Your task to perform on an android device: Open Yahoo.com Image 0: 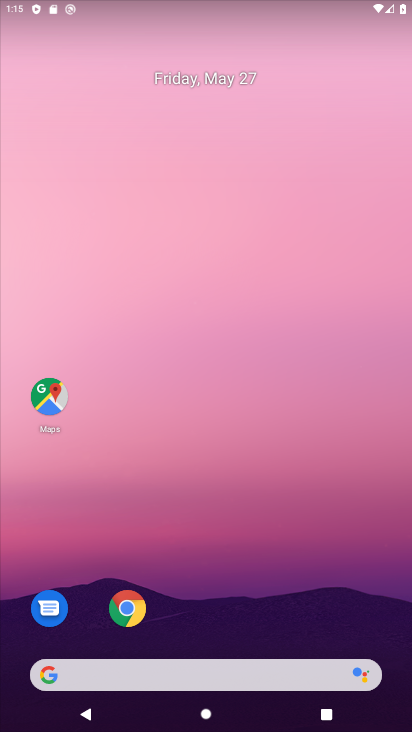
Step 0: click (125, 608)
Your task to perform on an android device: Open Yahoo.com Image 1: 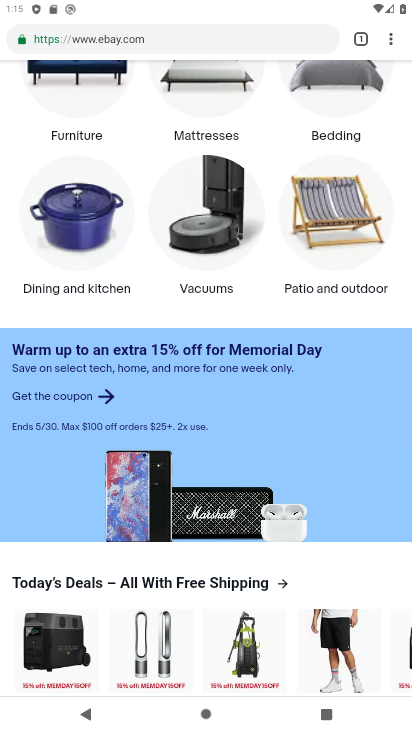
Step 1: drag from (216, 149) to (237, 476)
Your task to perform on an android device: Open Yahoo.com Image 2: 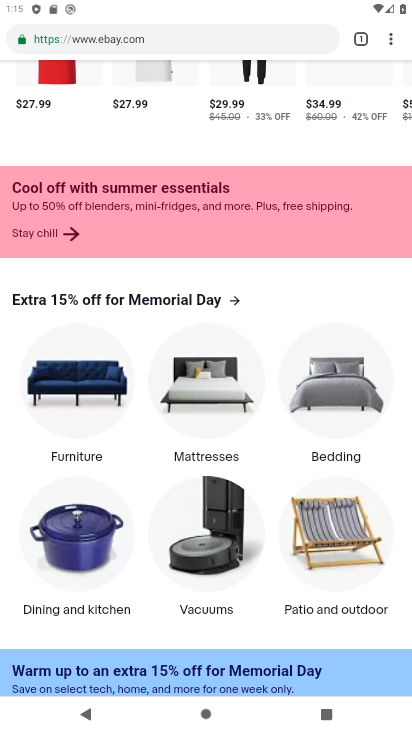
Step 2: click (168, 30)
Your task to perform on an android device: Open Yahoo.com Image 3: 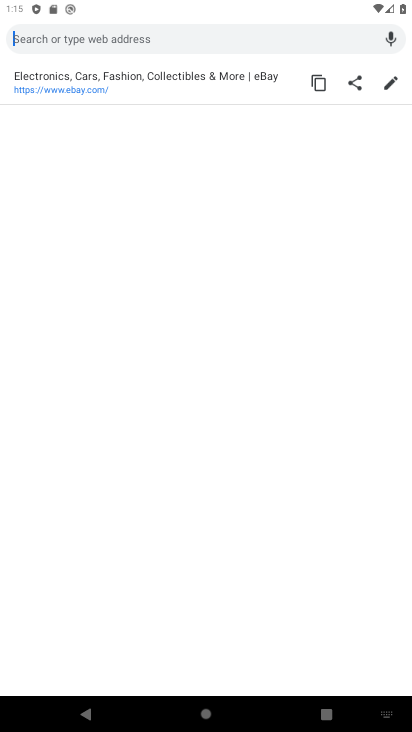
Step 3: type "yahoo.com"
Your task to perform on an android device: Open Yahoo.com Image 4: 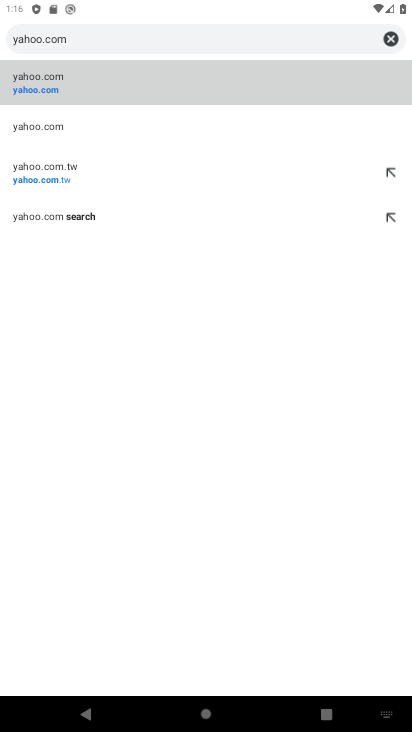
Step 4: click (34, 71)
Your task to perform on an android device: Open Yahoo.com Image 5: 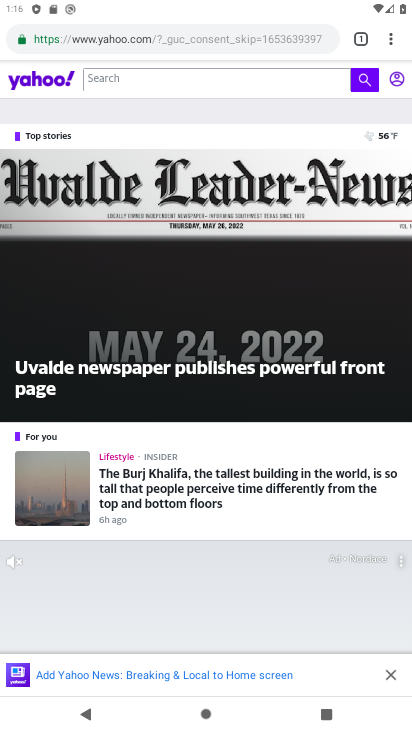
Step 5: task complete